Your task to perform on an android device: open sync settings in chrome Image 0: 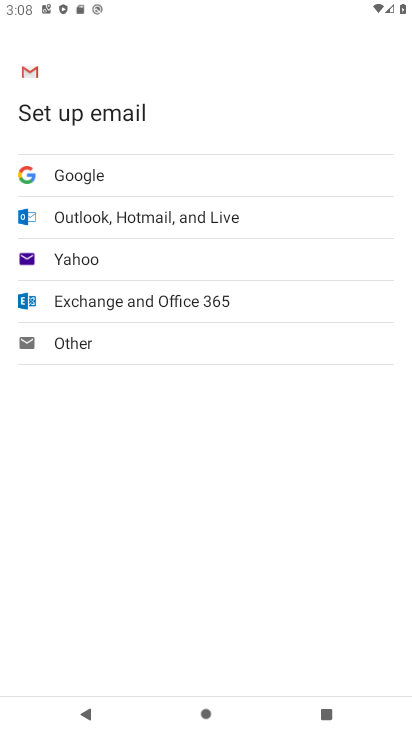
Step 0: press home button
Your task to perform on an android device: open sync settings in chrome Image 1: 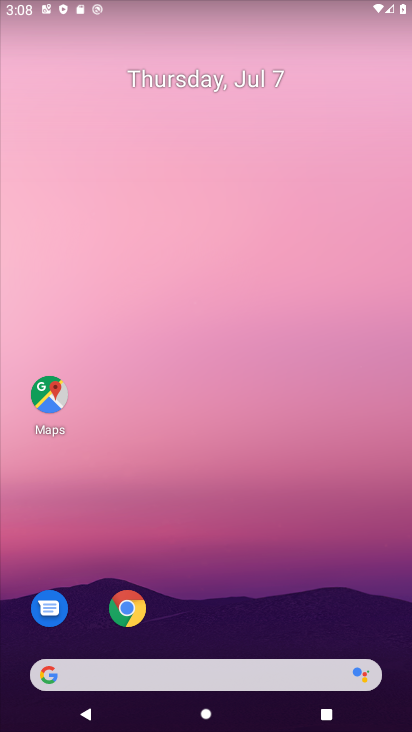
Step 1: click (127, 612)
Your task to perform on an android device: open sync settings in chrome Image 2: 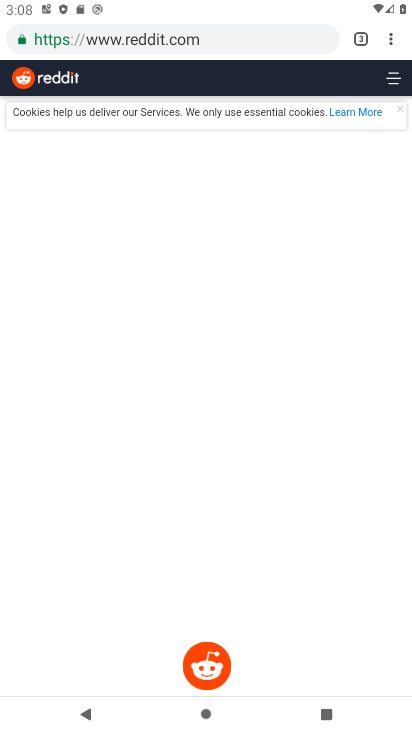
Step 2: click (389, 42)
Your task to perform on an android device: open sync settings in chrome Image 3: 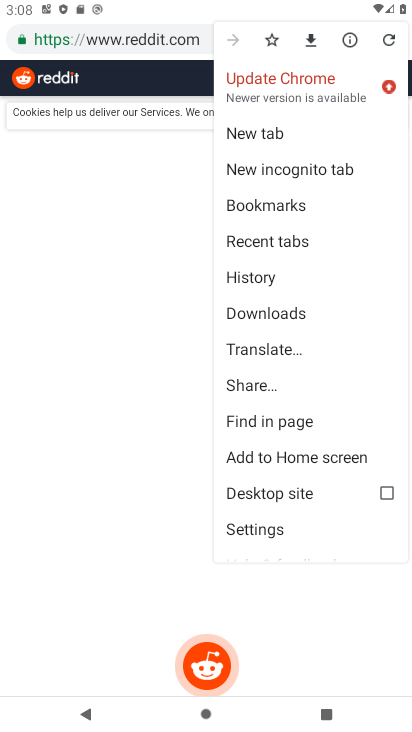
Step 3: click (262, 525)
Your task to perform on an android device: open sync settings in chrome Image 4: 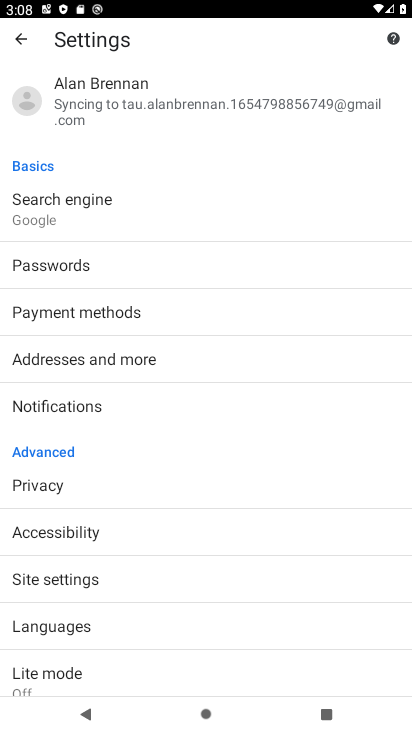
Step 4: click (89, 97)
Your task to perform on an android device: open sync settings in chrome Image 5: 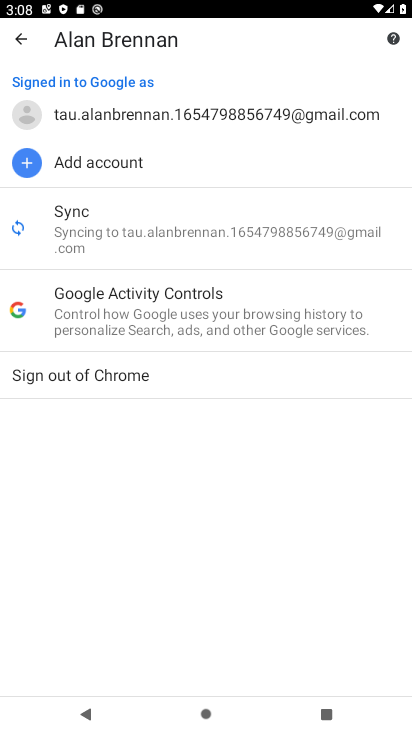
Step 5: click (74, 218)
Your task to perform on an android device: open sync settings in chrome Image 6: 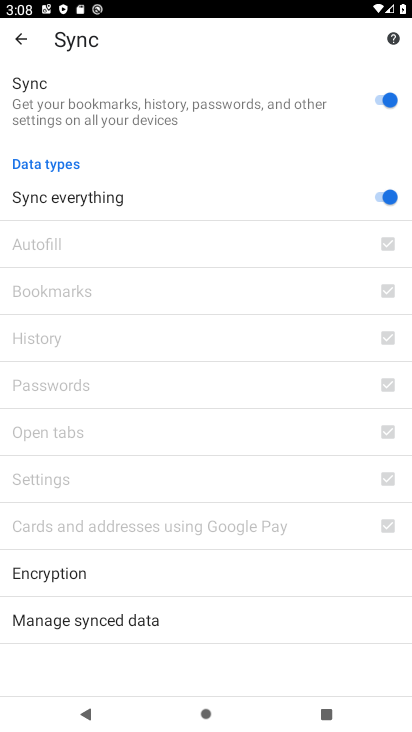
Step 6: task complete